Your task to perform on an android device: toggle javascript in the chrome app Image 0: 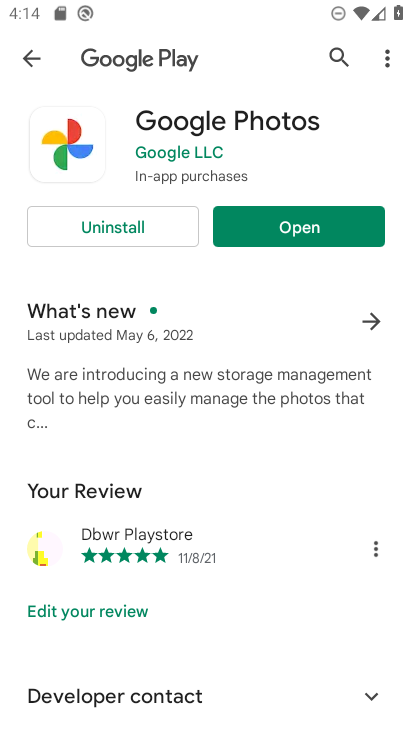
Step 0: press home button
Your task to perform on an android device: toggle javascript in the chrome app Image 1: 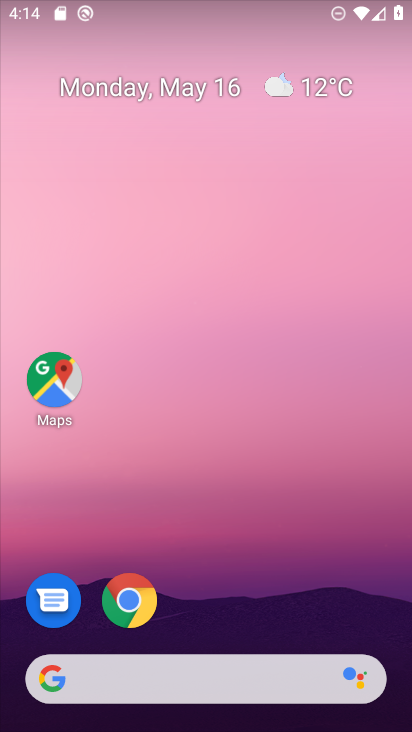
Step 1: click (132, 604)
Your task to perform on an android device: toggle javascript in the chrome app Image 2: 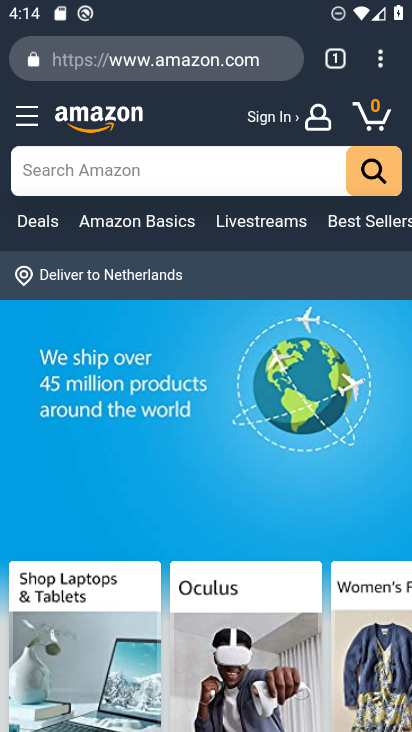
Step 2: drag from (388, 50) to (206, 633)
Your task to perform on an android device: toggle javascript in the chrome app Image 3: 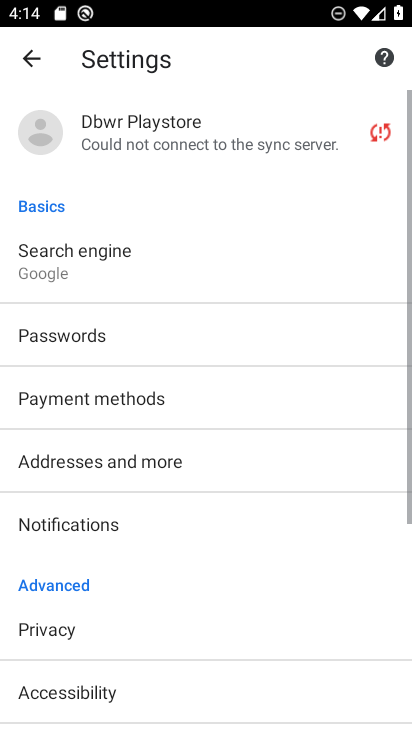
Step 3: drag from (196, 580) to (265, 102)
Your task to perform on an android device: toggle javascript in the chrome app Image 4: 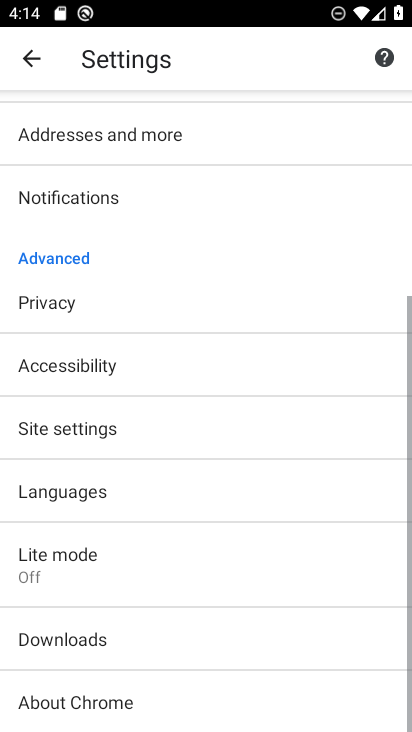
Step 4: drag from (158, 616) to (247, 306)
Your task to perform on an android device: toggle javascript in the chrome app Image 5: 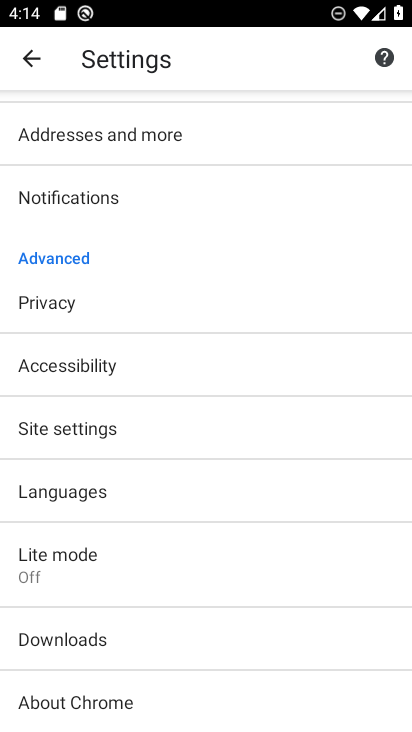
Step 5: click (96, 419)
Your task to perform on an android device: toggle javascript in the chrome app Image 6: 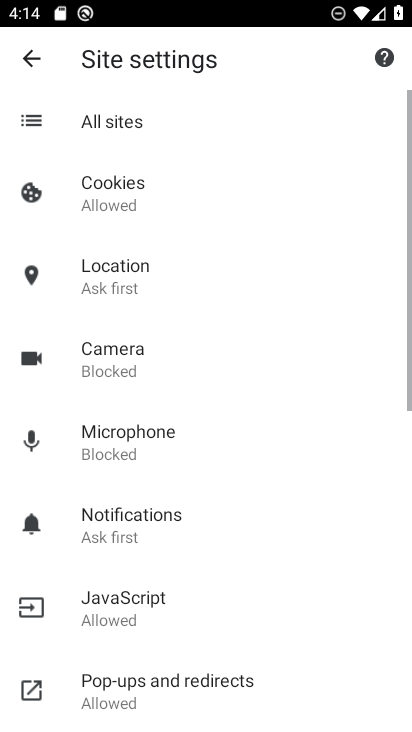
Step 6: drag from (155, 563) to (260, 342)
Your task to perform on an android device: toggle javascript in the chrome app Image 7: 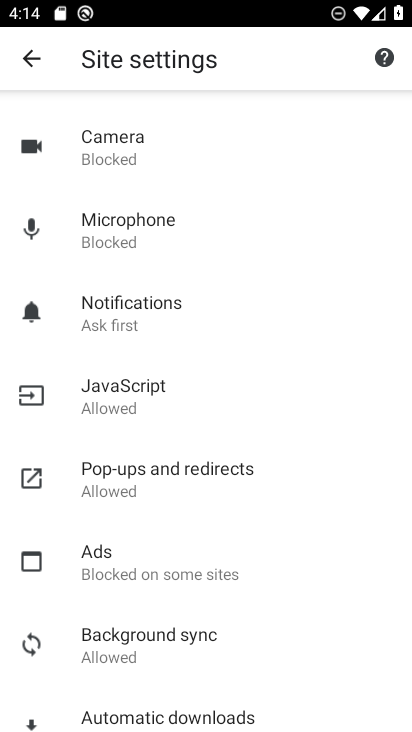
Step 7: click (154, 400)
Your task to perform on an android device: toggle javascript in the chrome app Image 8: 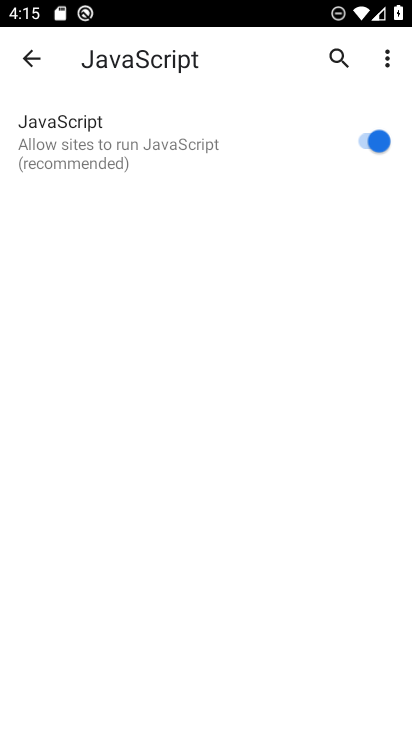
Step 8: click (359, 131)
Your task to perform on an android device: toggle javascript in the chrome app Image 9: 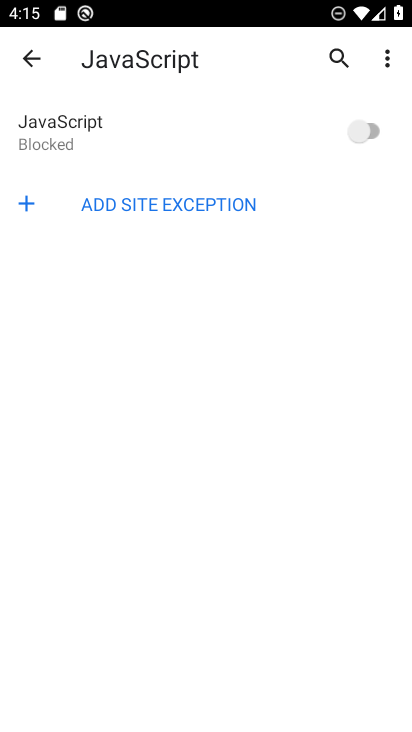
Step 9: task complete